Your task to perform on an android device: allow notifications from all sites in the chrome app Image 0: 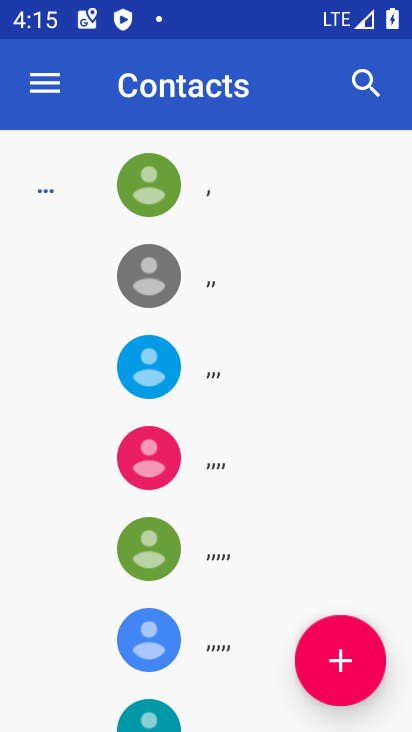
Step 0: press home button
Your task to perform on an android device: allow notifications from all sites in the chrome app Image 1: 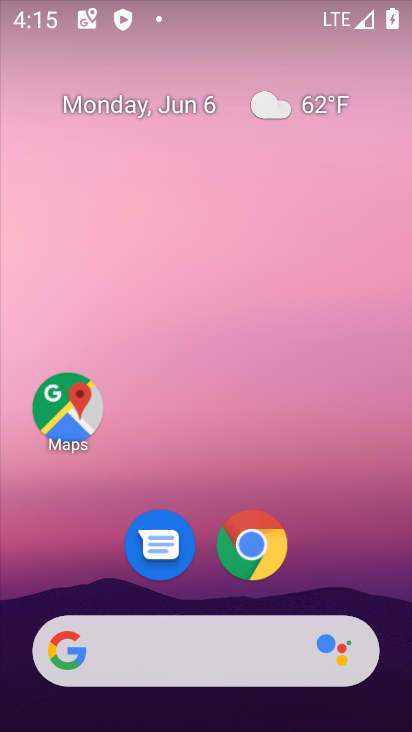
Step 1: click (251, 545)
Your task to perform on an android device: allow notifications from all sites in the chrome app Image 2: 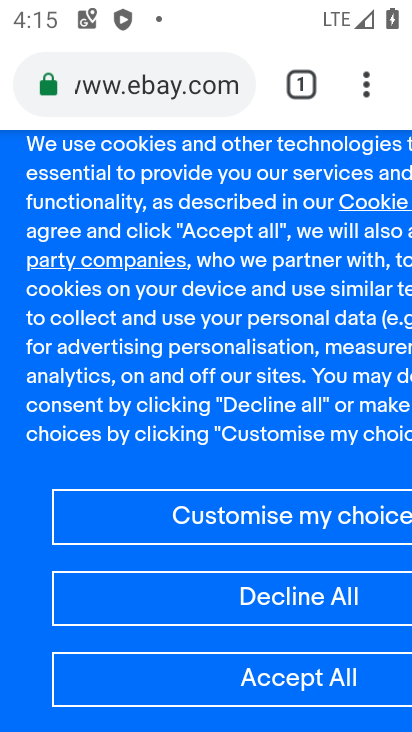
Step 2: click (367, 94)
Your task to perform on an android device: allow notifications from all sites in the chrome app Image 3: 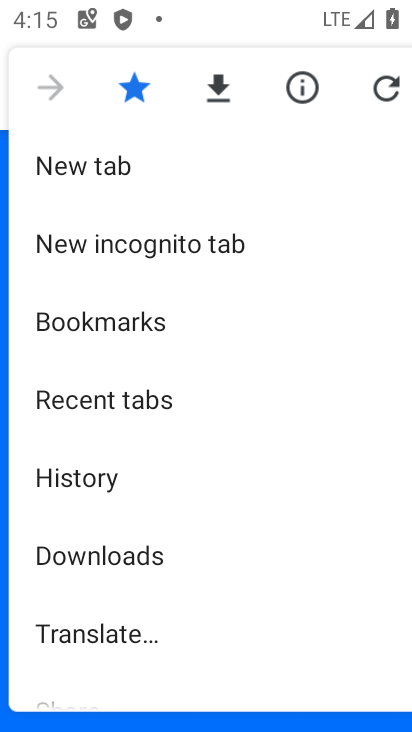
Step 3: drag from (84, 675) to (137, 232)
Your task to perform on an android device: allow notifications from all sites in the chrome app Image 4: 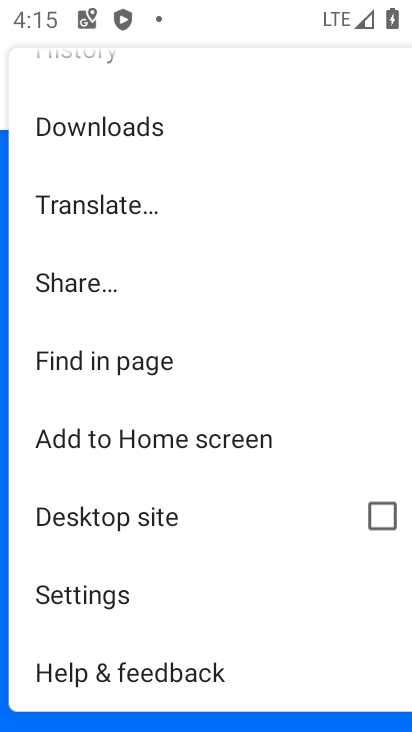
Step 4: click (100, 594)
Your task to perform on an android device: allow notifications from all sites in the chrome app Image 5: 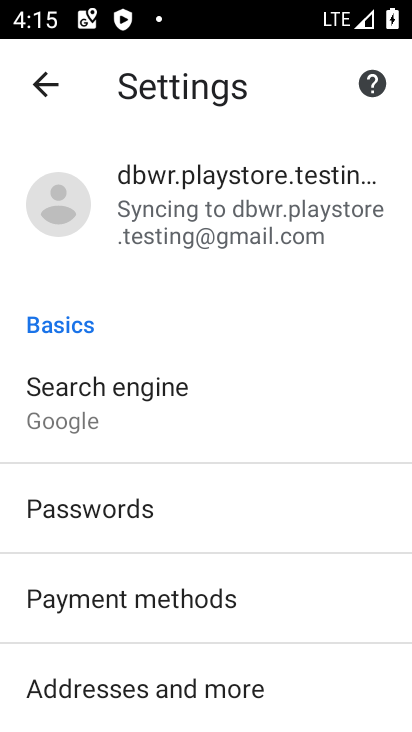
Step 5: drag from (120, 689) to (128, 289)
Your task to perform on an android device: allow notifications from all sites in the chrome app Image 6: 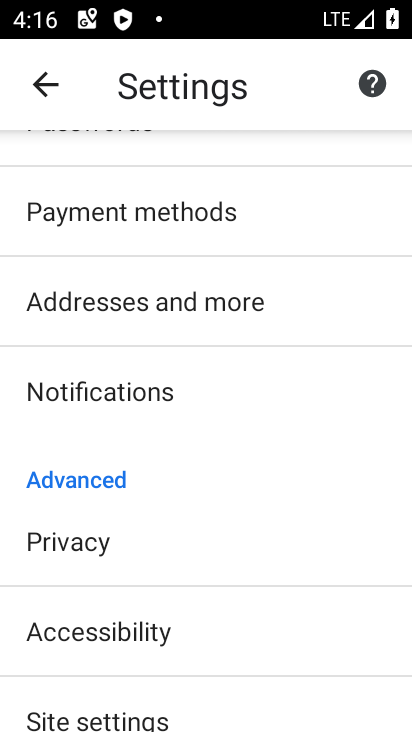
Step 6: drag from (121, 699) to (131, 289)
Your task to perform on an android device: allow notifications from all sites in the chrome app Image 7: 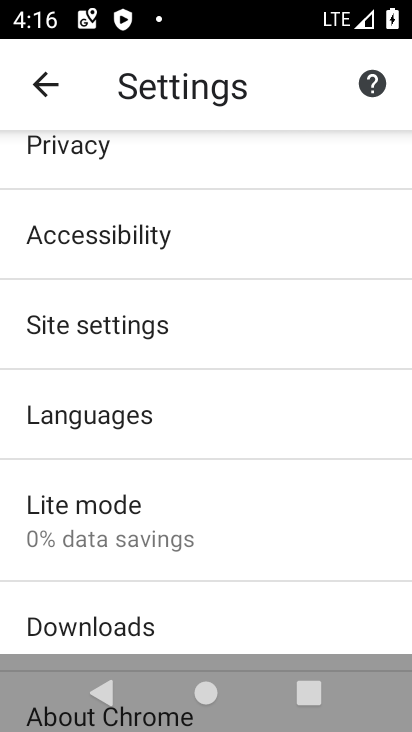
Step 7: click (123, 319)
Your task to perform on an android device: allow notifications from all sites in the chrome app Image 8: 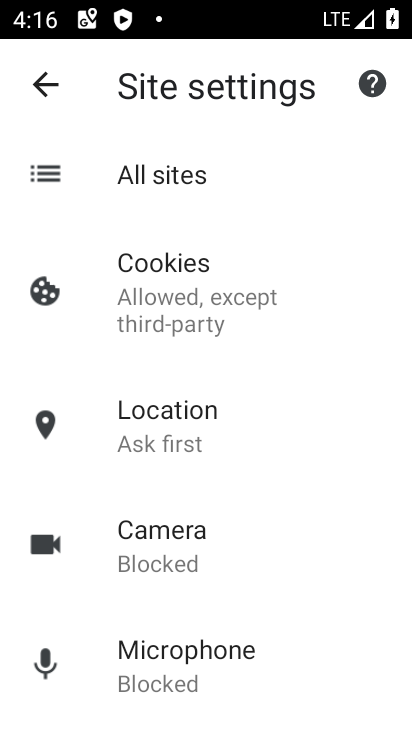
Step 8: drag from (157, 669) to (171, 283)
Your task to perform on an android device: allow notifications from all sites in the chrome app Image 9: 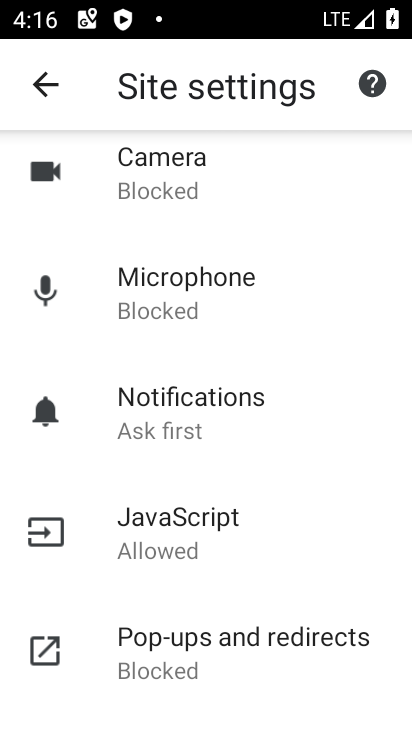
Step 9: click (154, 401)
Your task to perform on an android device: allow notifications from all sites in the chrome app Image 10: 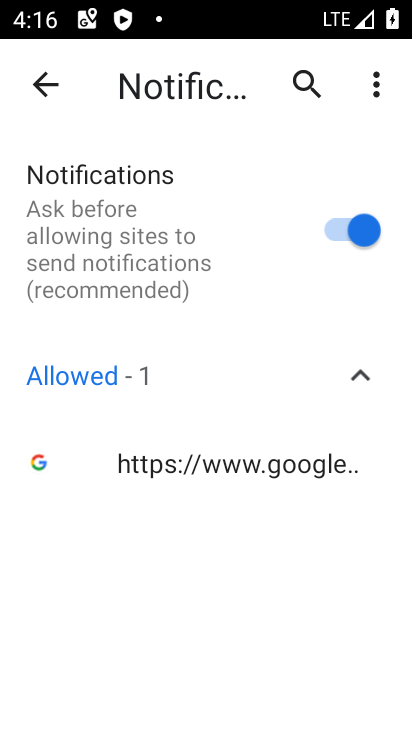
Step 10: task complete